Your task to perform on an android device: change the clock display to analog Image 0: 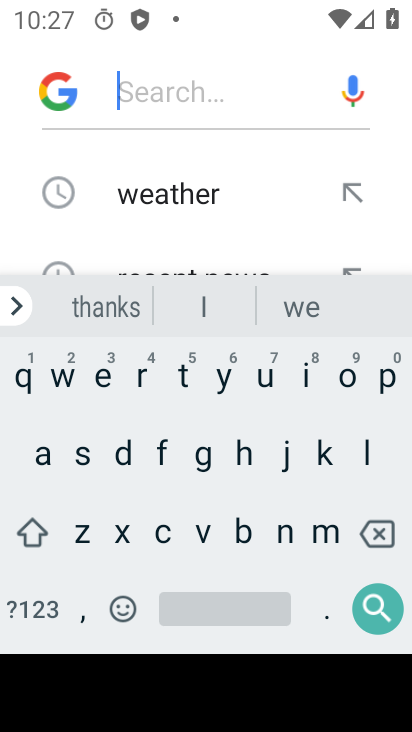
Step 0: press home button
Your task to perform on an android device: change the clock display to analog Image 1: 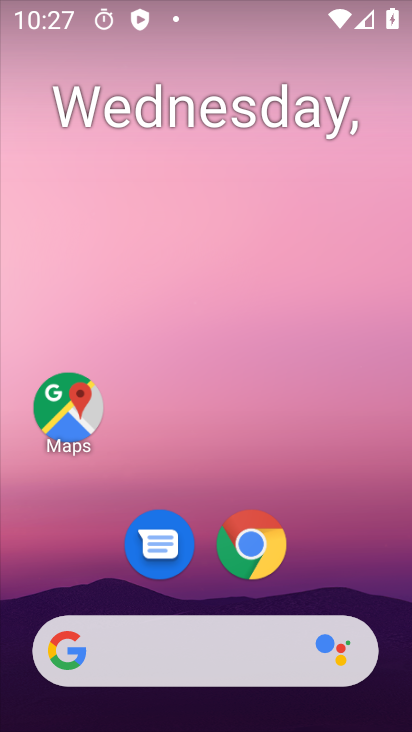
Step 1: drag from (254, 701) to (265, 255)
Your task to perform on an android device: change the clock display to analog Image 2: 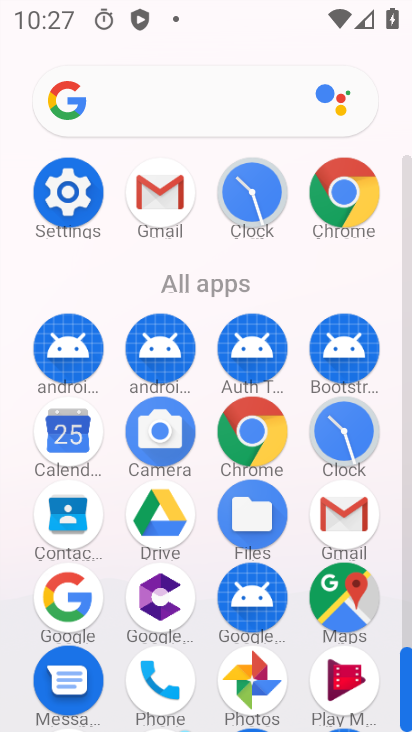
Step 2: click (252, 177)
Your task to perform on an android device: change the clock display to analog Image 3: 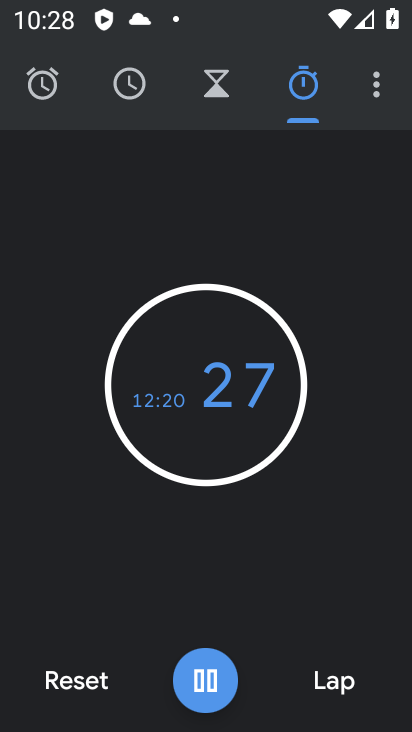
Step 3: click (374, 94)
Your task to perform on an android device: change the clock display to analog Image 4: 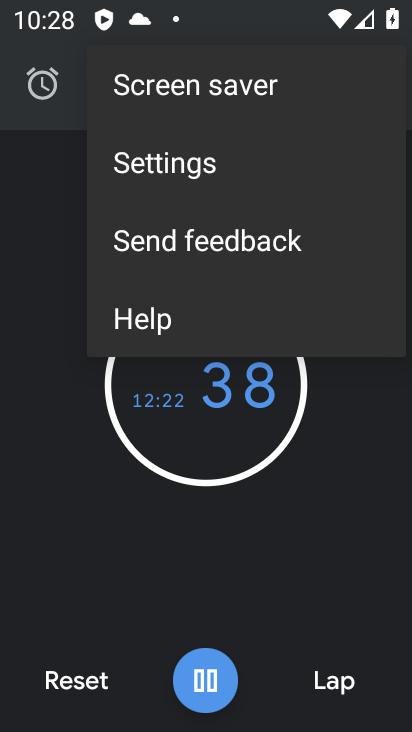
Step 4: click (227, 168)
Your task to perform on an android device: change the clock display to analog Image 5: 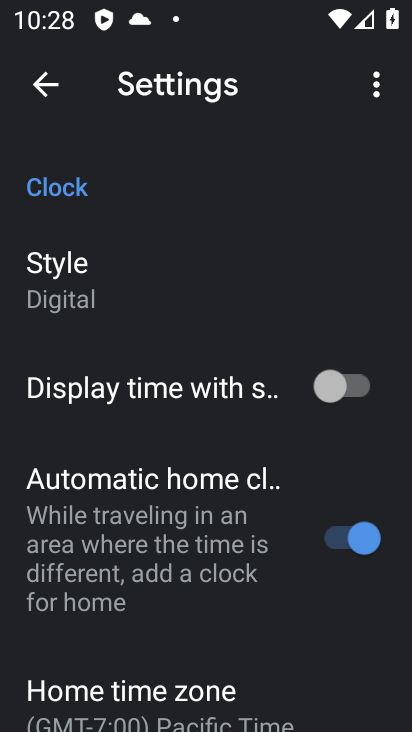
Step 5: click (170, 258)
Your task to perform on an android device: change the clock display to analog Image 6: 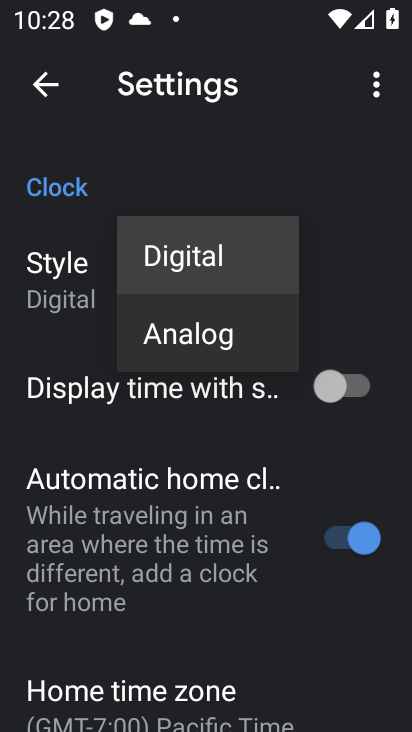
Step 6: click (184, 339)
Your task to perform on an android device: change the clock display to analog Image 7: 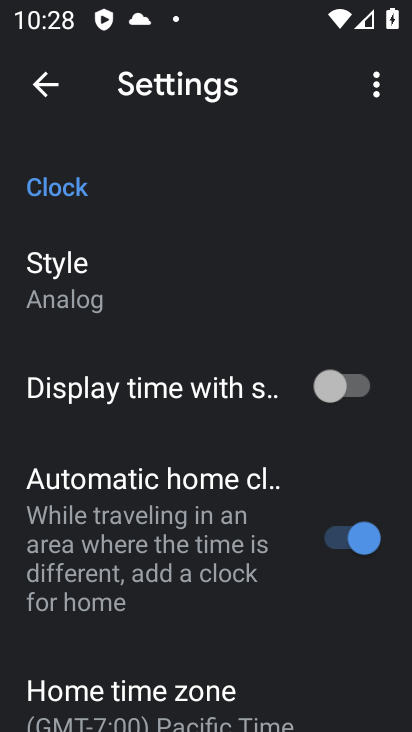
Step 7: task complete